Your task to perform on an android device: Open Google Maps and go to "Timeline" Image 0: 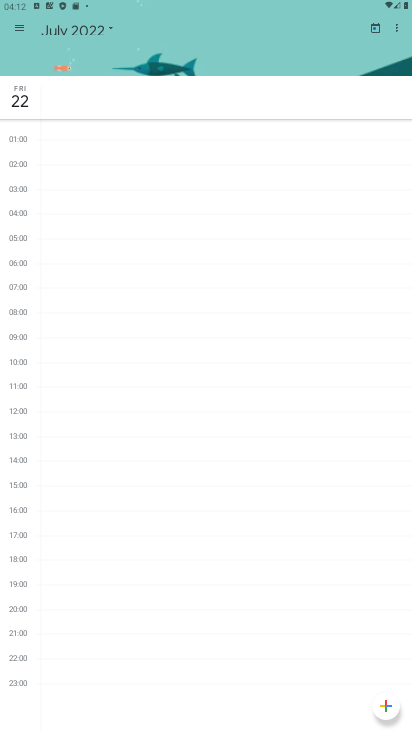
Step 0: press home button
Your task to perform on an android device: Open Google Maps and go to "Timeline" Image 1: 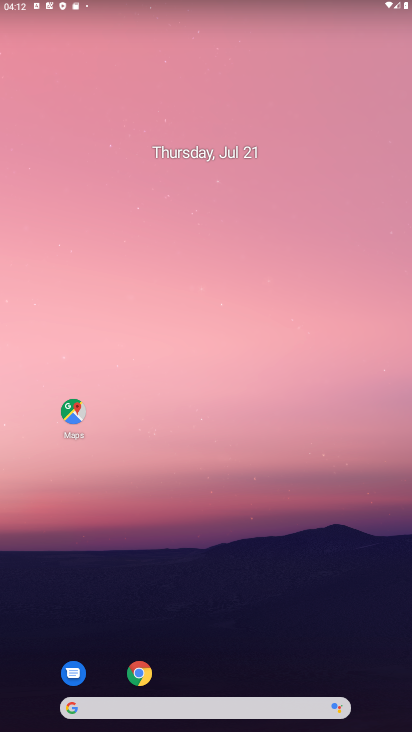
Step 1: click (71, 409)
Your task to perform on an android device: Open Google Maps and go to "Timeline" Image 2: 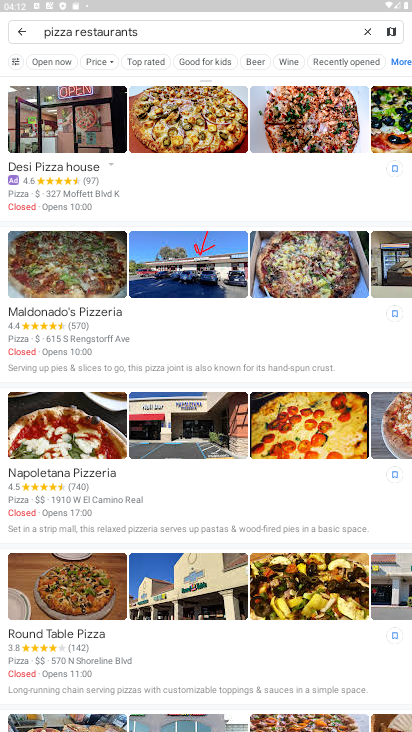
Step 2: click (364, 28)
Your task to perform on an android device: Open Google Maps and go to "Timeline" Image 3: 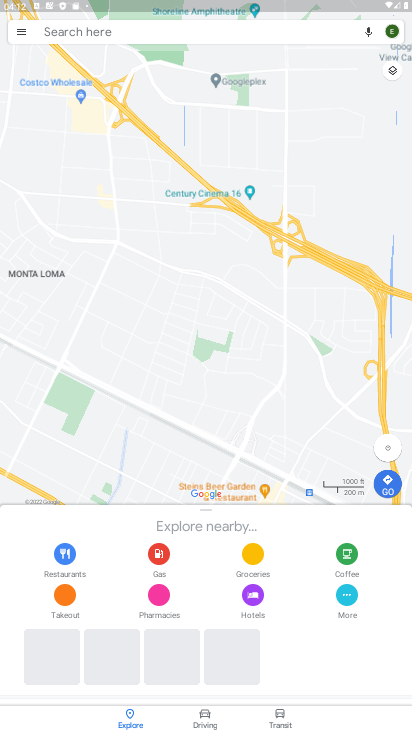
Step 3: click (20, 35)
Your task to perform on an android device: Open Google Maps and go to "Timeline" Image 4: 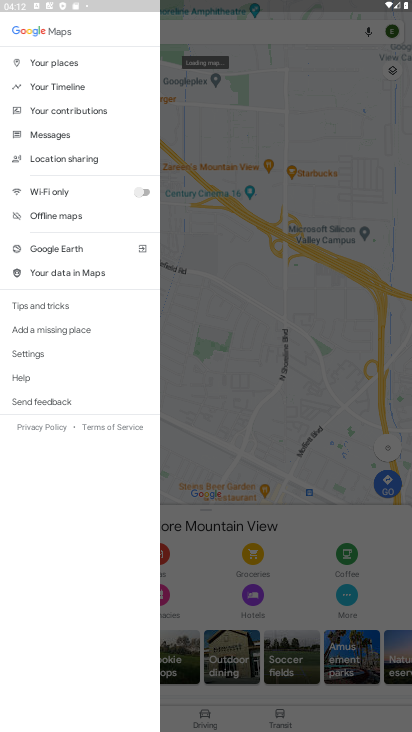
Step 4: click (55, 84)
Your task to perform on an android device: Open Google Maps and go to "Timeline" Image 5: 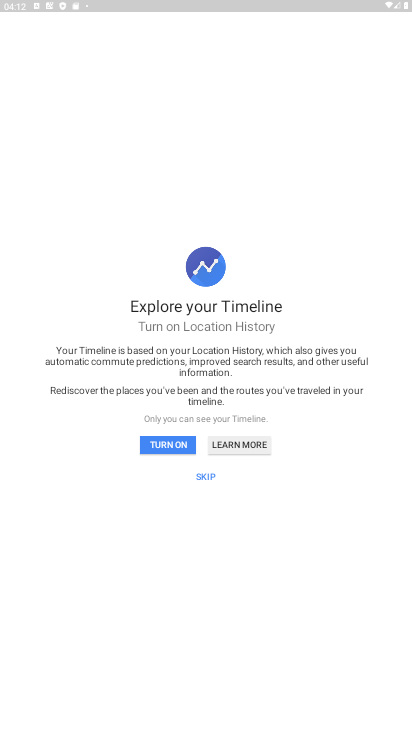
Step 5: click (202, 473)
Your task to perform on an android device: Open Google Maps and go to "Timeline" Image 6: 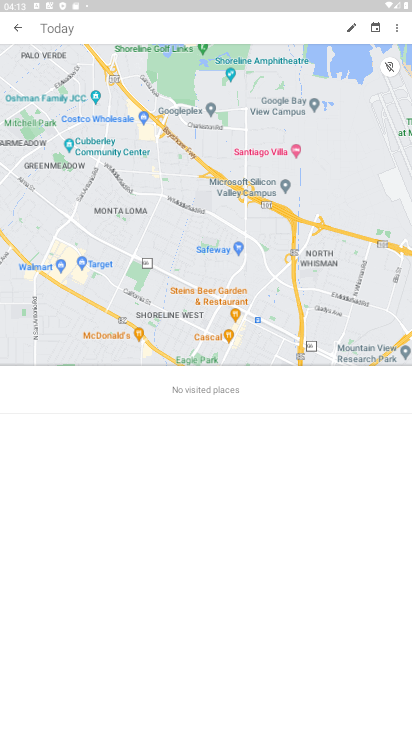
Step 6: task complete